Your task to perform on an android device: open app "Google Drive" Image 0: 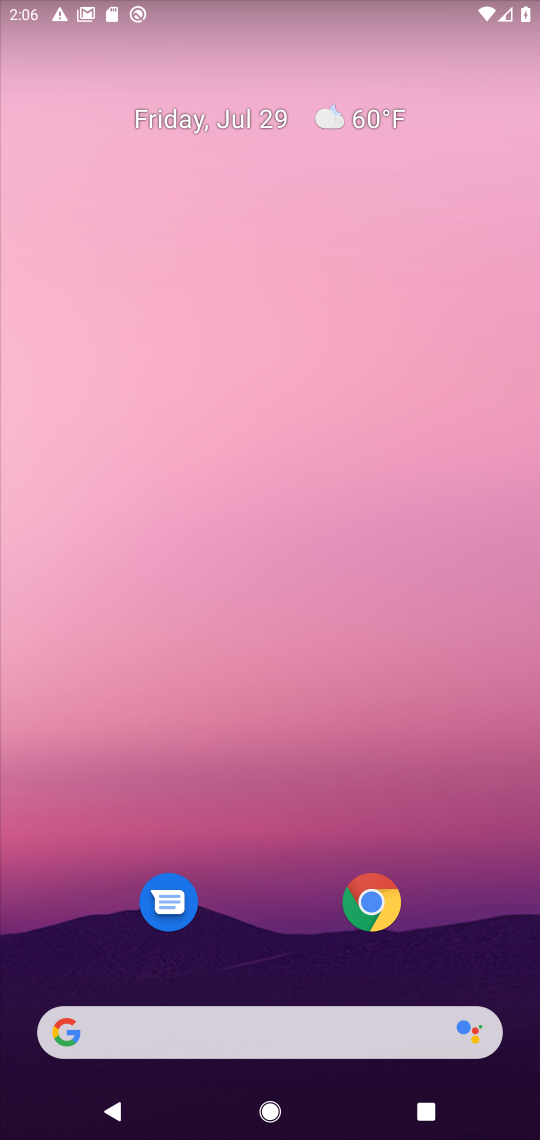
Step 0: drag from (270, 918) to (369, 0)
Your task to perform on an android device: open app "Google Drive" Image 1: 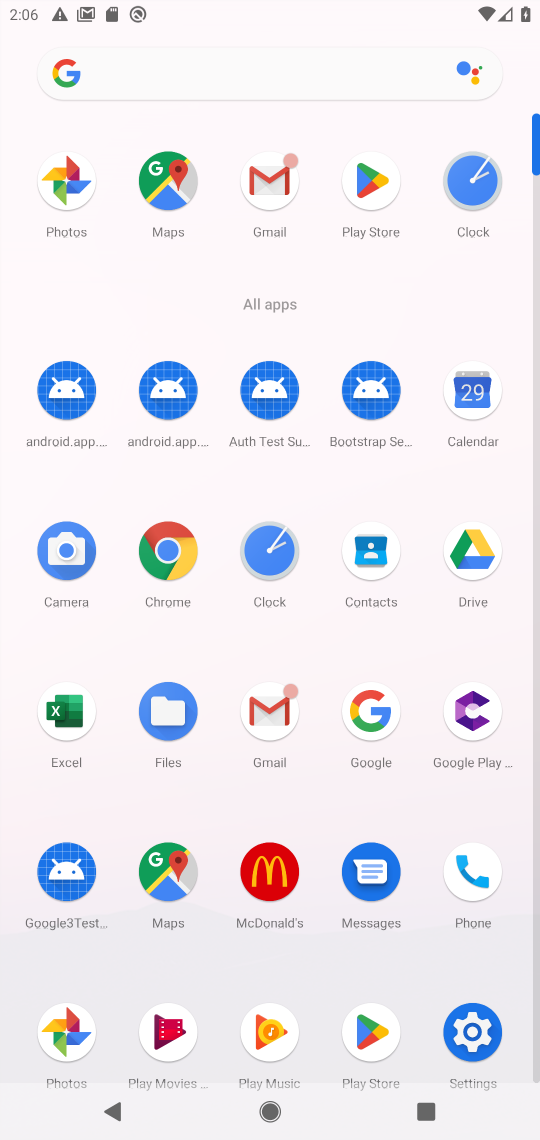
Step 1: click (467, 552)
Your task to perform on an android device: open app "Google Drive" Image 2: 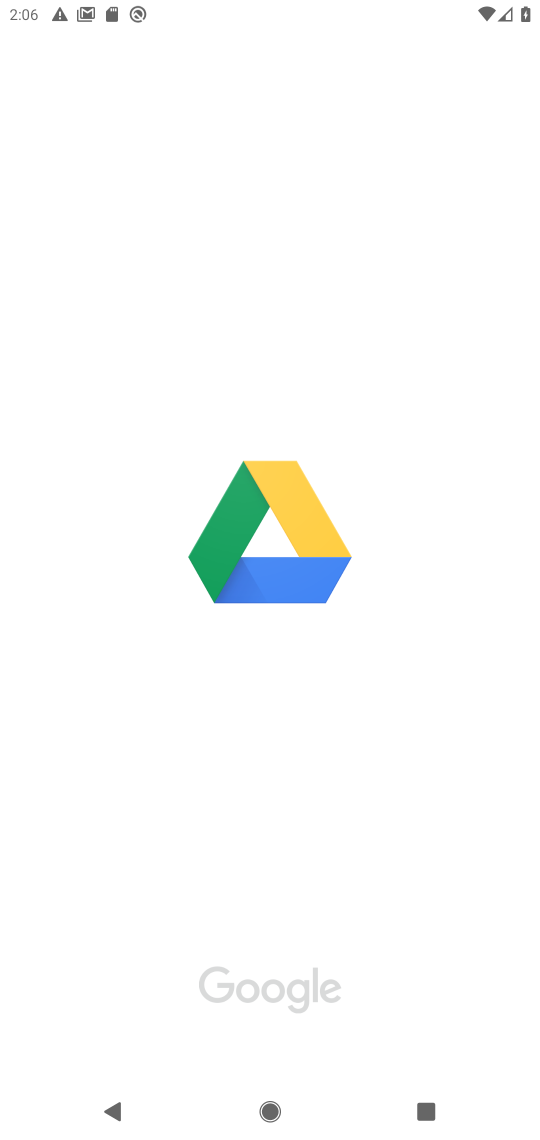
Step 2: task complete